Your task to perform on an android device: Search for vegetarian restaurants on Maps Image 0: 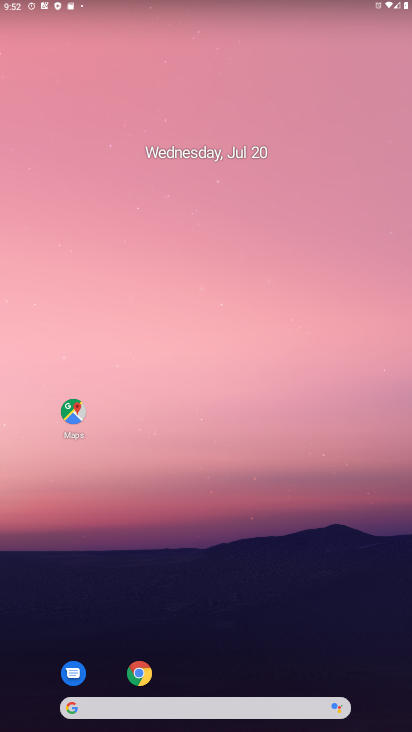
Step 0: drag from (185, 627) to (185, 233)
Your task to perform on an android device: Search for vegetarian restaurants on Maps Image 1: 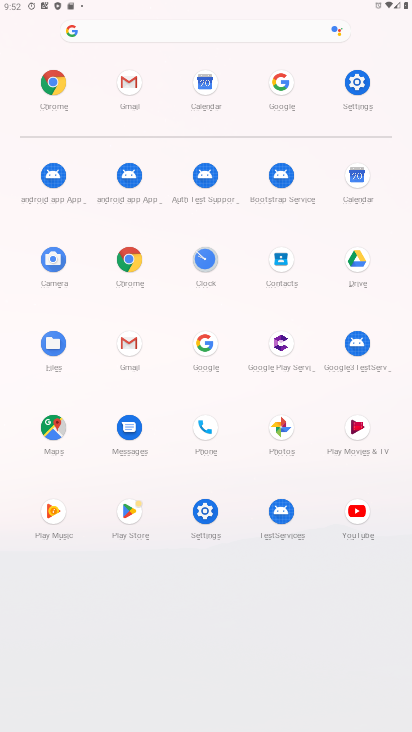
Step 1: click (46, 424)
Your task to perform on an android device: Search for vegetarian restaurants on Maps Image 2: 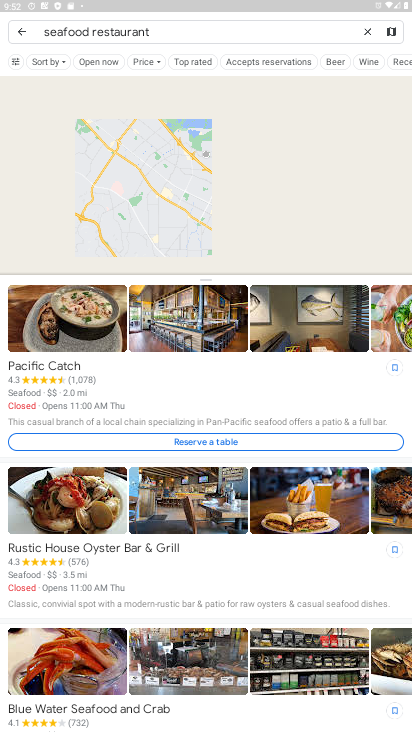
Step 2: click (367, 29)
Your task to perform on an android device: Search for vegetarian restaurants on Maps Image 3: 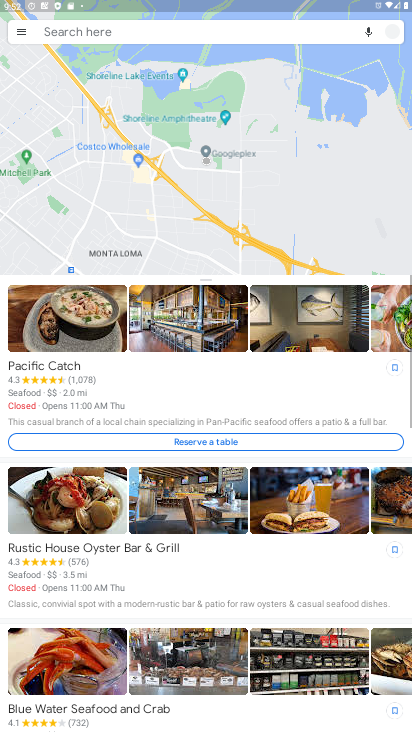
Step 3: click (170, 29)
Your task to perform on an android device: Search for vegetarian restaurants on Maps Image 4: 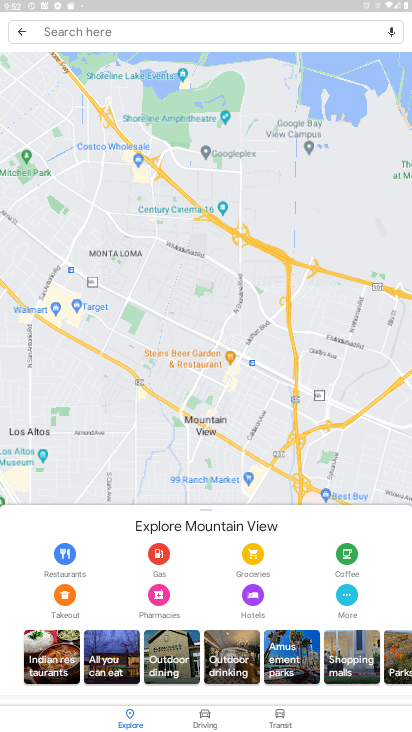
Step 4: click (112, 29)
Your task to perform on an android device: Search for vegetarian restaurants on Maps Image 5: 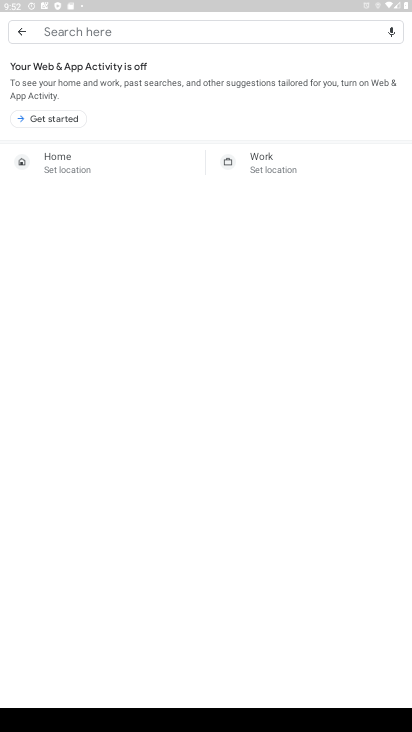
Step 5: type "vegetarian restaurants"
Your task to perform on an android device: Search for vegetarian restaurants on Maps Image 6: 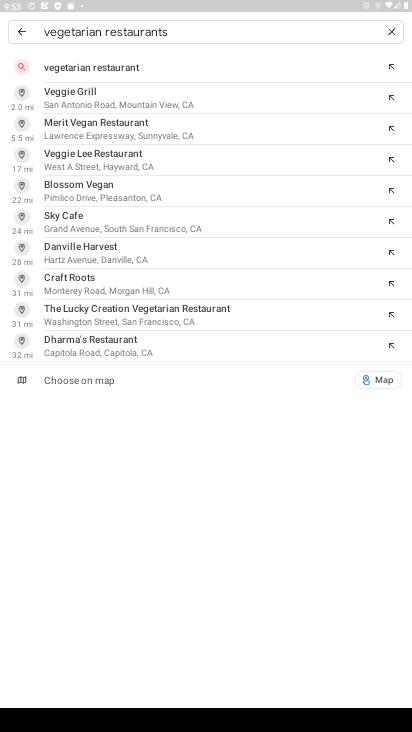
Step 6: click (113, 70)
Your task to perform on an android device: Search for vegetarian restaurants on Maps Image 7: 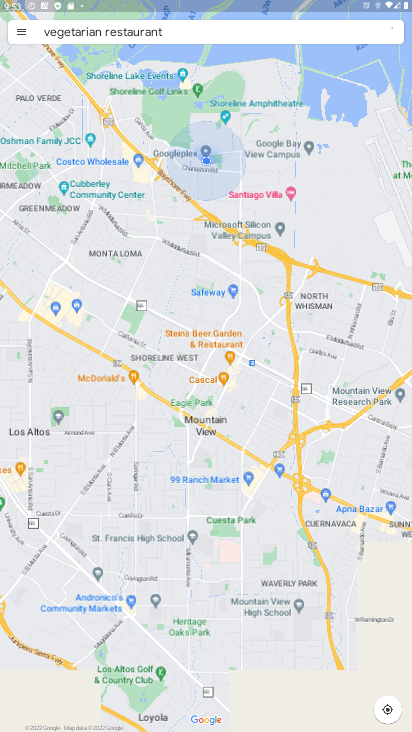
Step 7: task complete